Your task to perform on an android device: Open calendar and show me the fourth week of next month Image 0: 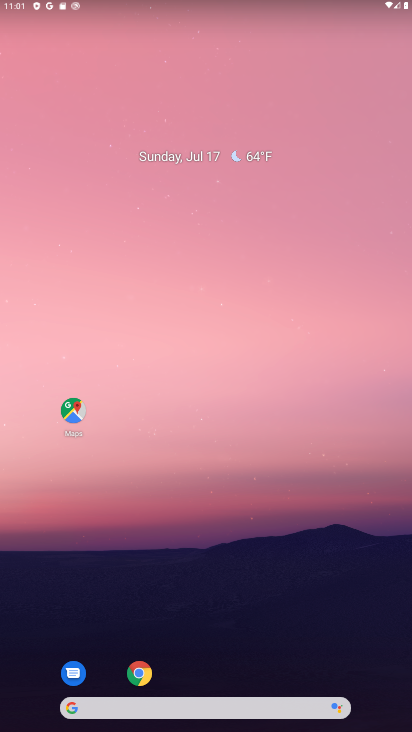
Step 0: drag from (198, 677) to (183, 160)
Your task to perform on an android device: Open calendar and show me the fourth week of next month Image 1: 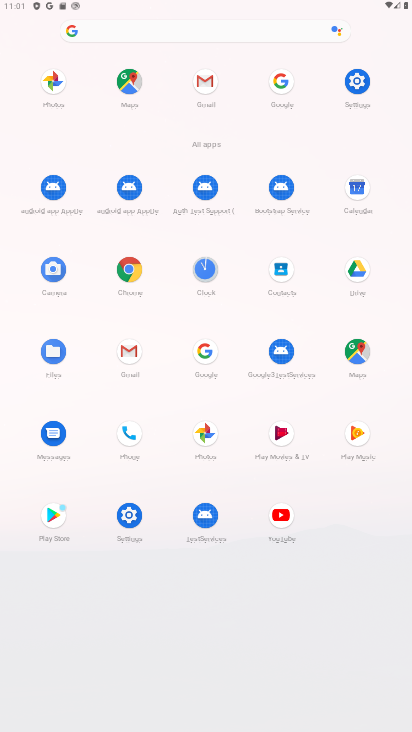
Step 1: click (358, 187)
Your task to perform on an android device: Open calendar and show me the fourth week of next month Image 2: 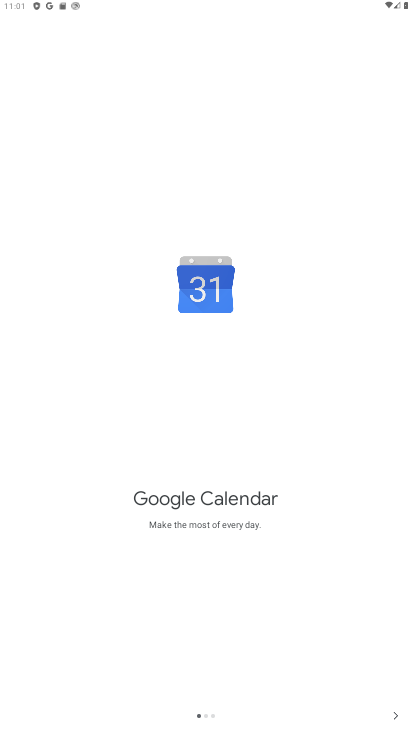
Step 2: click (390, 714)
Your task to perform on an android device: Open calendar and show me the fourth week of next month Image 3: 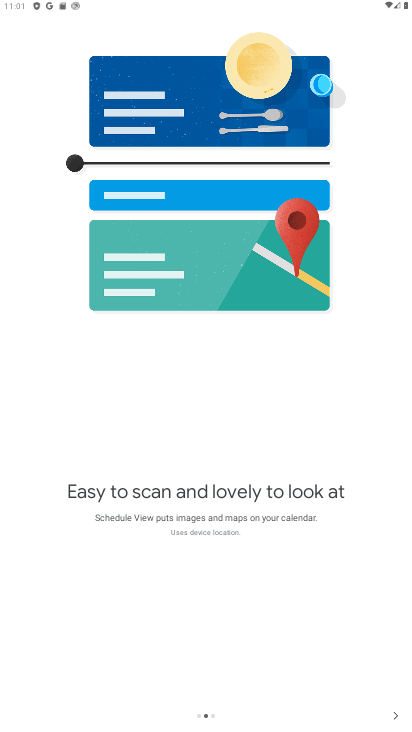
Step 3: click (390, 714)
Your task to perform on an android device: Open calendar and show me the fourth week of next month Image 4: 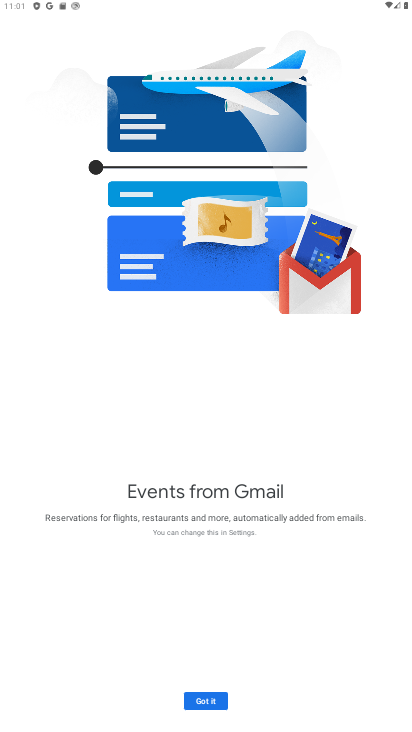
Step 4: click (211, 703)
Your task to perform on an android device: Open calendar and show me the fourth week of next month Image 5: 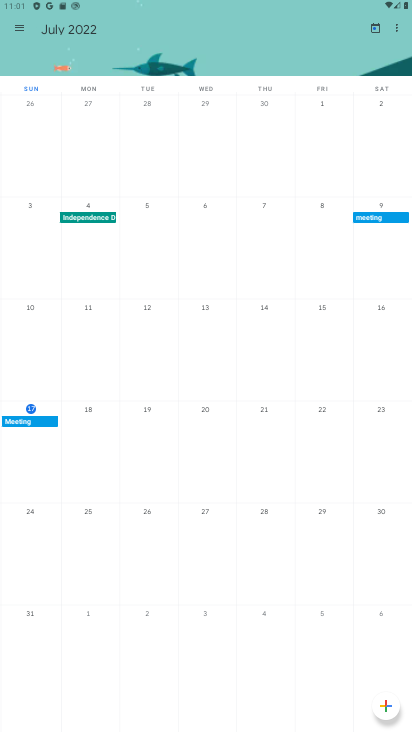
Step 5: drag from (375, 654) to (4, 542)
Your task to perform on an android device: Open calendar and show me the fourth week of next month Image 6: 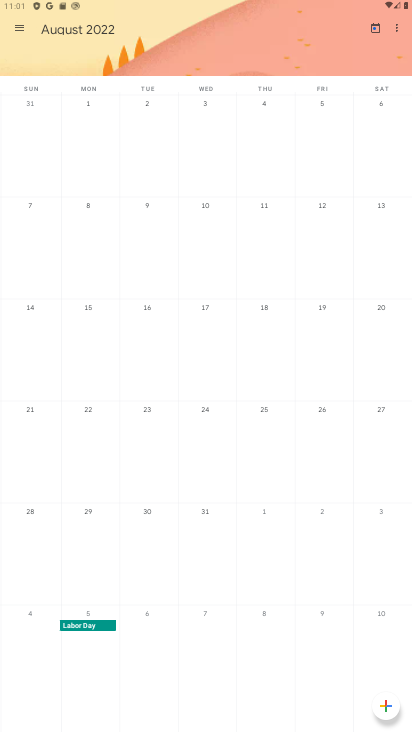
Step 6: click (272, 422)
Your task to perform on an android device: Open calendar and show me the fourth week of next month Image 7: 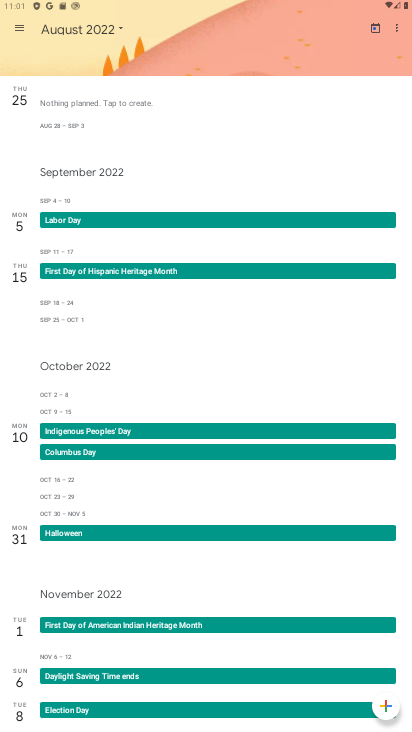
Step 7: task complete